Your task to perform on an android device: all mails in gmail Image 0: 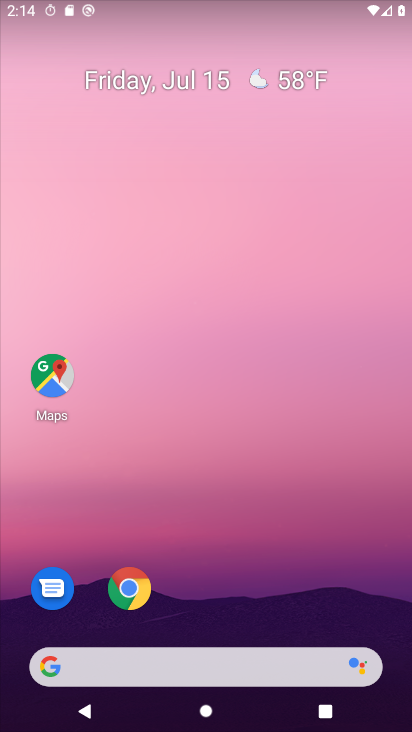
Step 0: drag from (230, 612) to (335, 22)
Your task to perform on an android device: all mails in gmail Image 1: 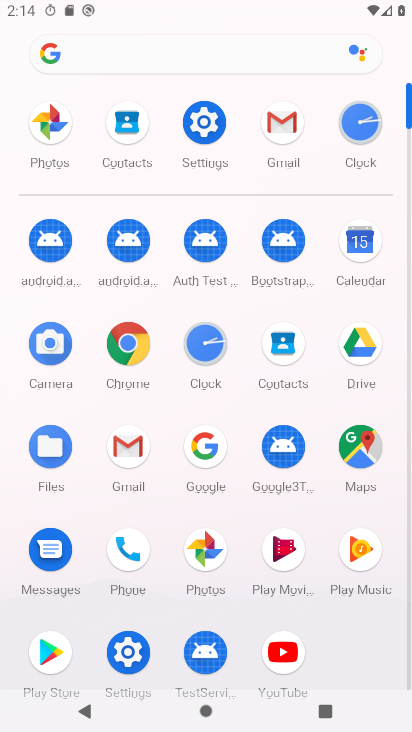
Step 1: click (125, 447)
Your task to perform on an android device: all mails in gmail Image 2: 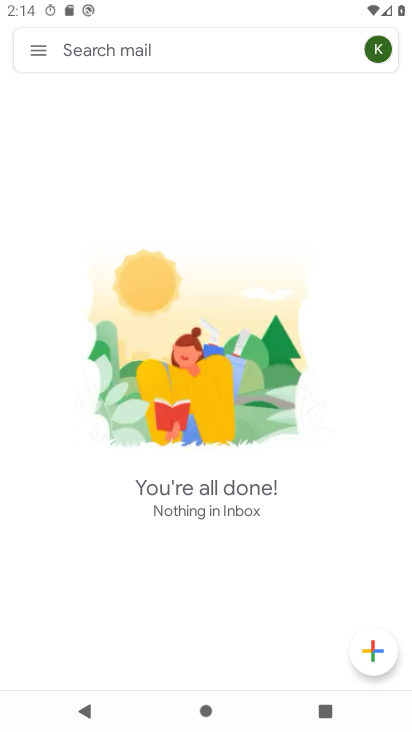
Step 2: click (28, 48)
Your task to perform on an android device: all mails in gmail Image 3: 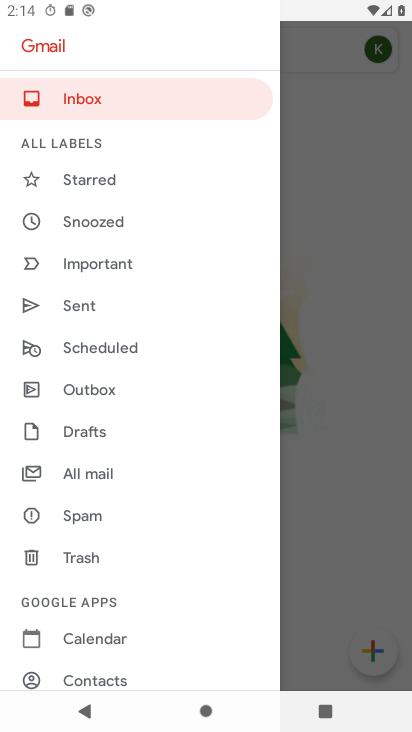
Step 3: click (107, 479)
Your task to perform on an android device: all mails in gmail Image 4: 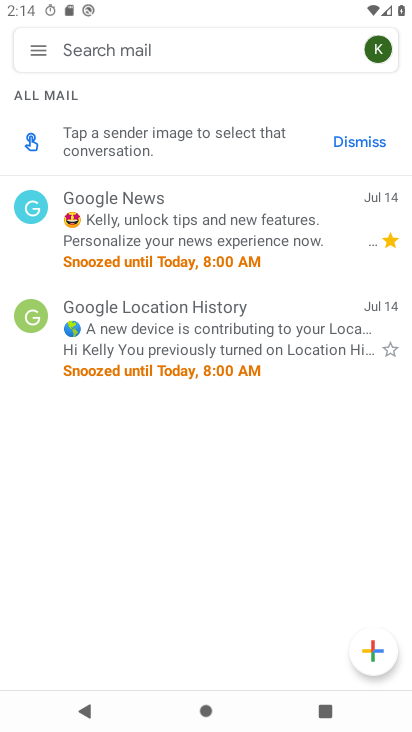
Step 4: task complete